Your task to perform on an android device: stop showing notifications on the lock screen Image 0: 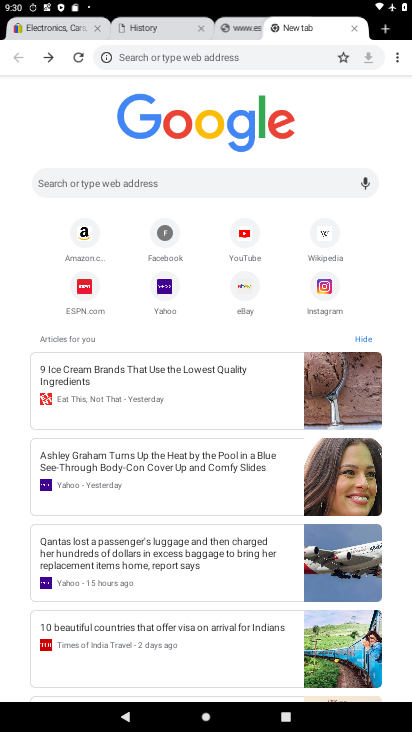
Step 0: press home button
Your task to perform on an android device: stop showing notifications on the lock screen Image 1: 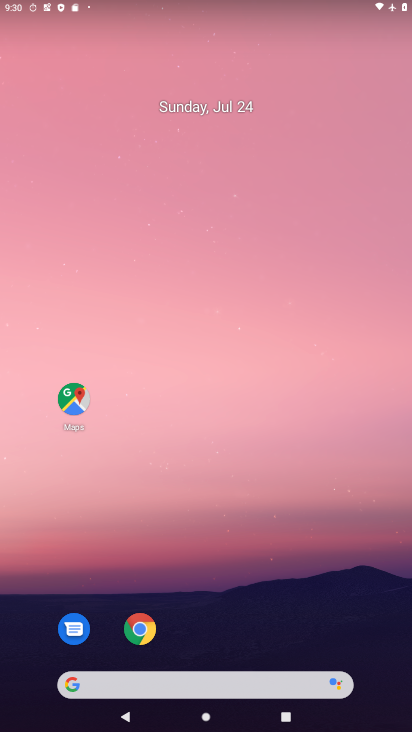
Step 1: drag from (201, 693) to (248, 276)
Your task to perform on an android device: stop showing notifications on the lock screen Image 2: 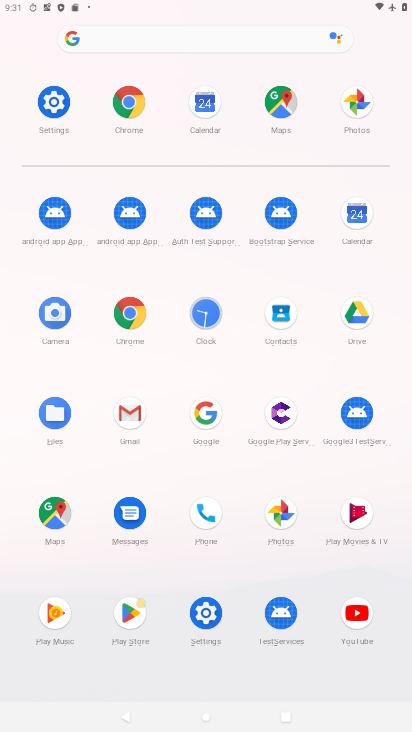
Step 2: click (33, 105)
Your task to perform on an android device: stop showing notifications on the lock screen Image 3: 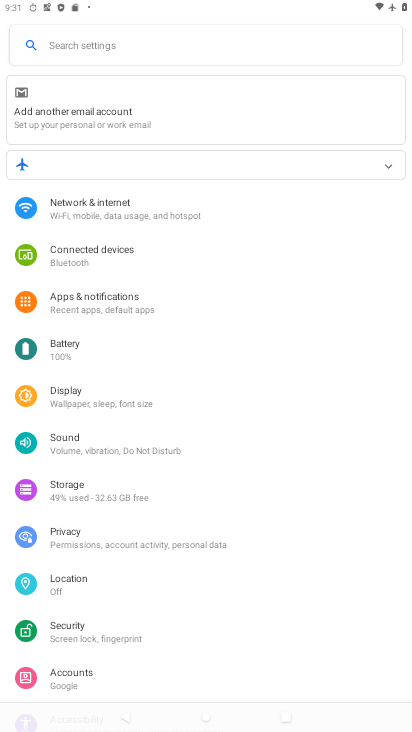
Step 3: click (144, 307)
Your task to perform on an android device: stop showing notifications on the lock screen Image 4: 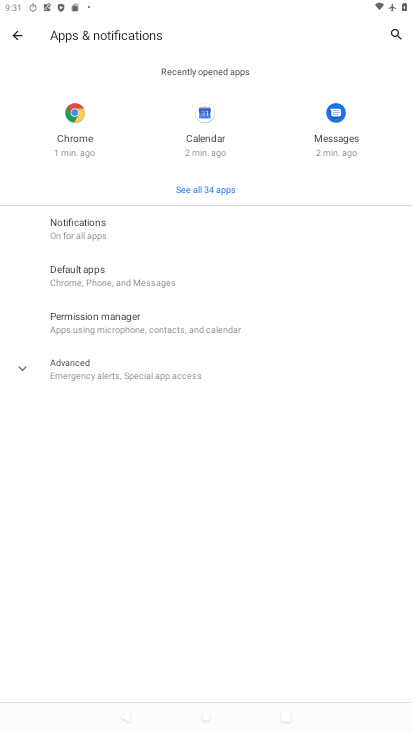
Step 4: click (123, 241)
Your task to perform on an android device: stop showing notifications on the lock screen Image 5: 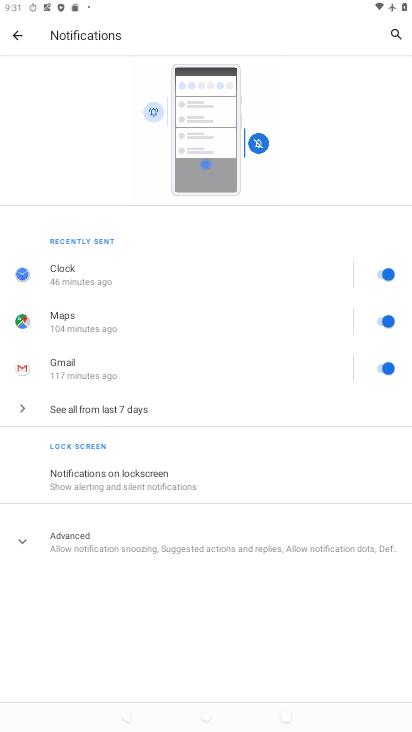
Step 5: click (148, 474)
Your task to perform on an android device: stop showing notifications on the lock screen Image 6: 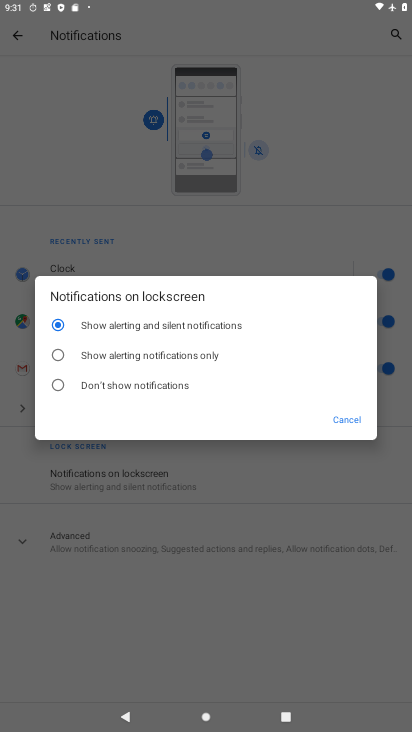
Step 6: click (58, 385)
Your task to perform on an android device: stop showing notifications on the lock screen Image 7: 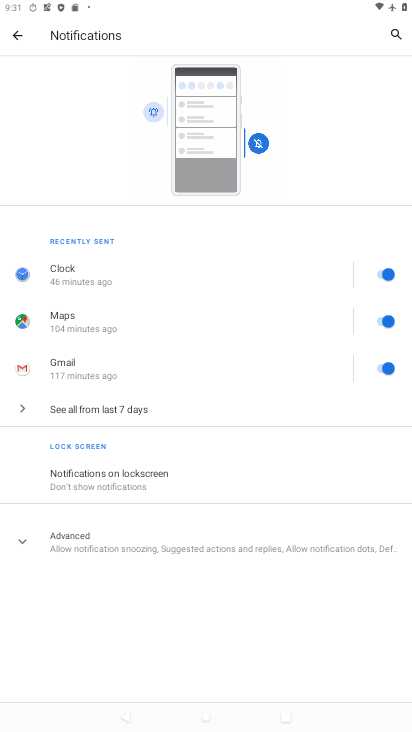
Step 7: task complete